Your task to perform on an android device: see tabs open on other devices in the chrome app Image 0: 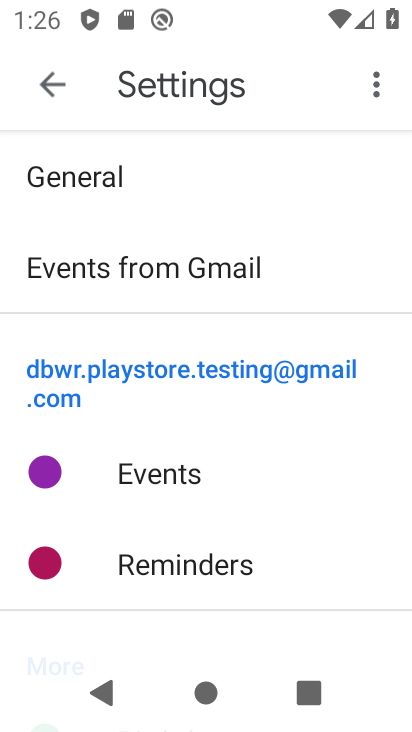
Step 0: press home button
Your task to perform on an android device: see tabs open on other devices in the chrome app Image 1: 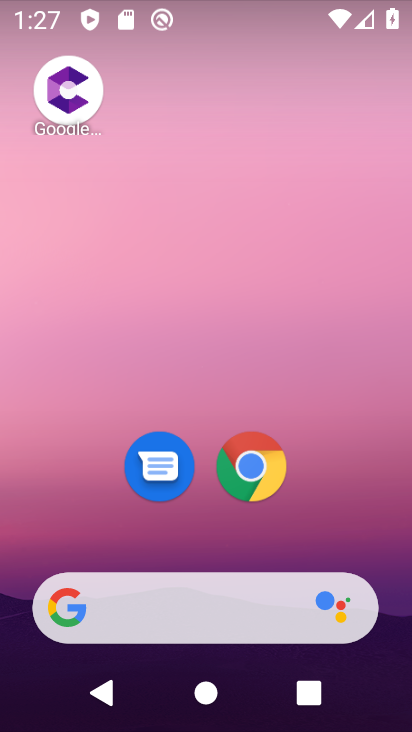
Step 1: click (273, 467)
Your task to perform on an android device: see tabs open on other devices in the chrome app Image 2: 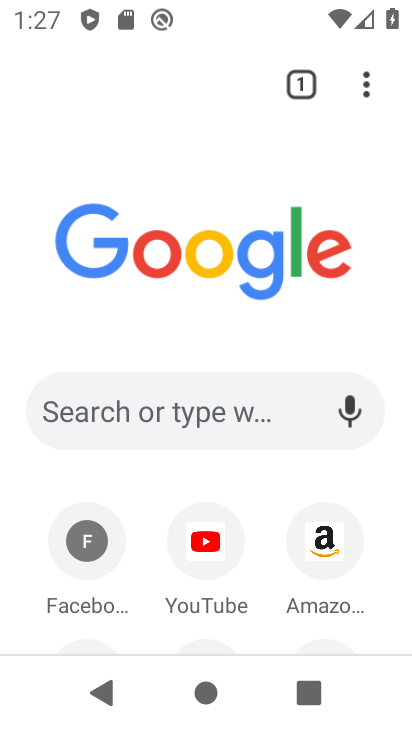
Step 2: click (371, 83)
Your task to perform on an android device: see tabs open on other devices in the chrome app Image 3: 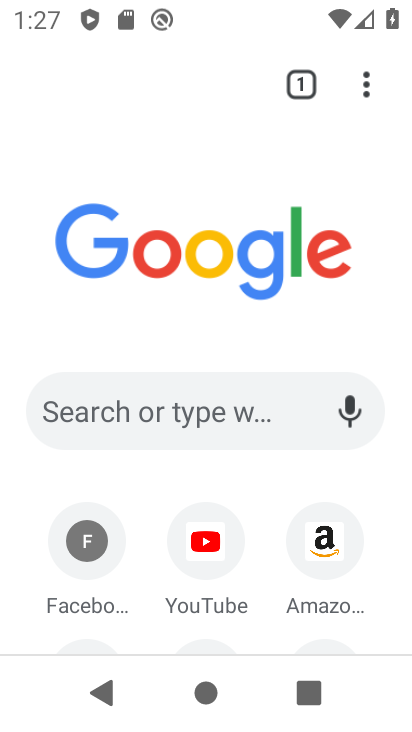
Step 3: task complete